Your task to perform on an android device: Go to settings Image 0: 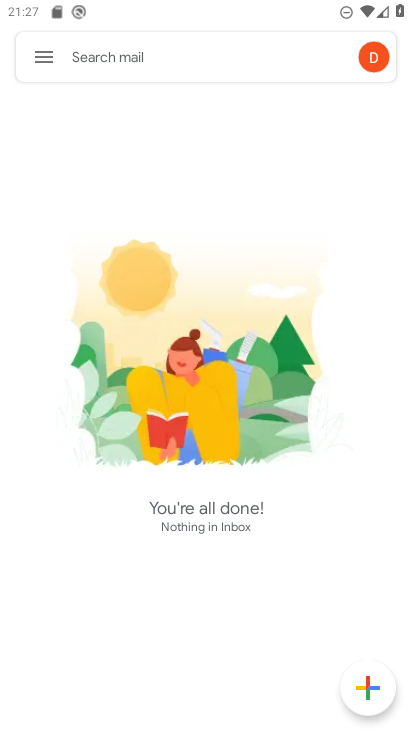
Step 0: press home button
Your task to perform on an android device: Go to settings Image 1: 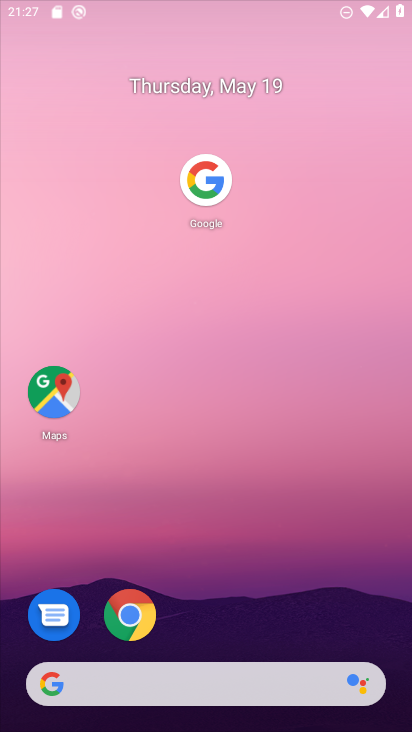
Step 1: drag from (242, 603) to (311, 68)
Your task to perform on an android device: Go to settings Image 2: 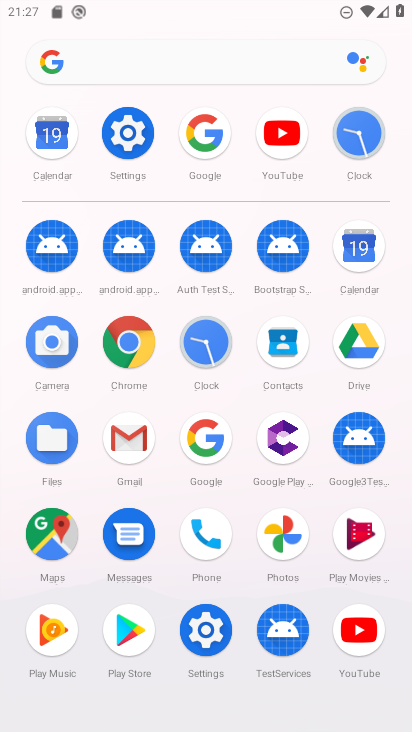
Step 2: click (126, 138)
Your task to perform on an android device: Go to settings Image 3: 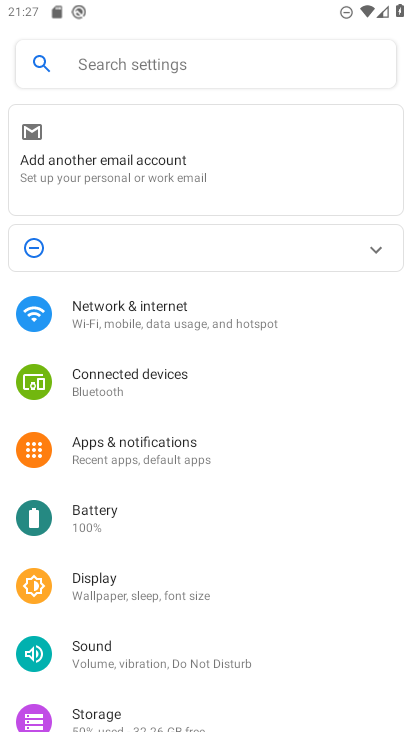
Step 3: task complete